Your task to perform on an android device: change timer sound Image 0: 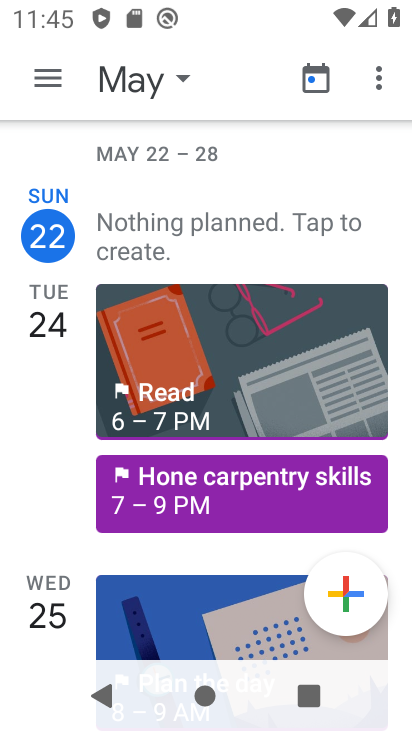
Step 0: press home button
Your task to perform on an android device: change timer sound Image 1: 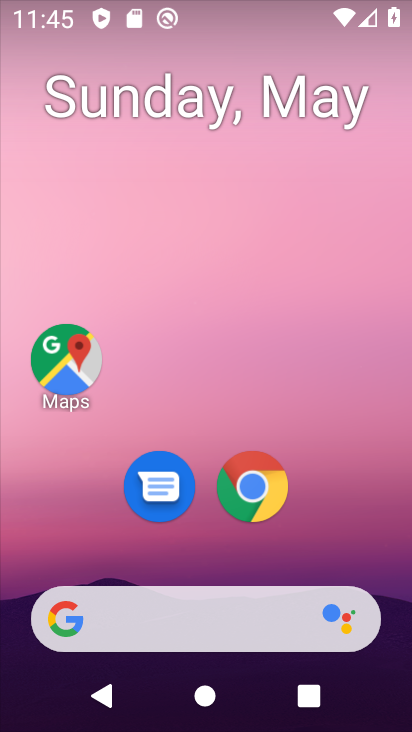
Step 1: drag from (402, 573) to (309, 114)
Your task to perform on an android device: change timer sound Image 2: 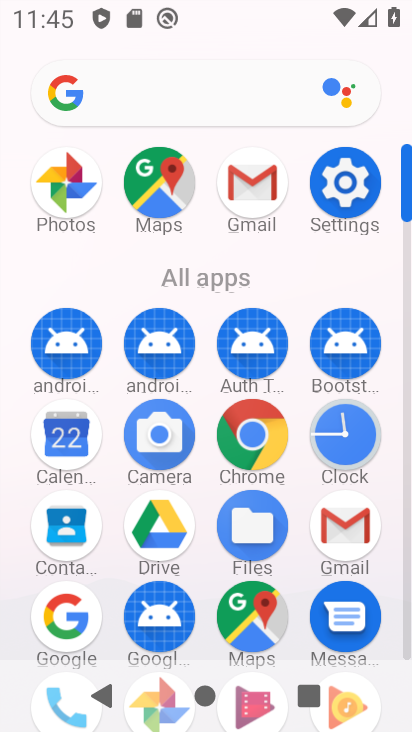
Step 2: click (405, 647)
Your task to perform on an android device: change timer sound Image 3: 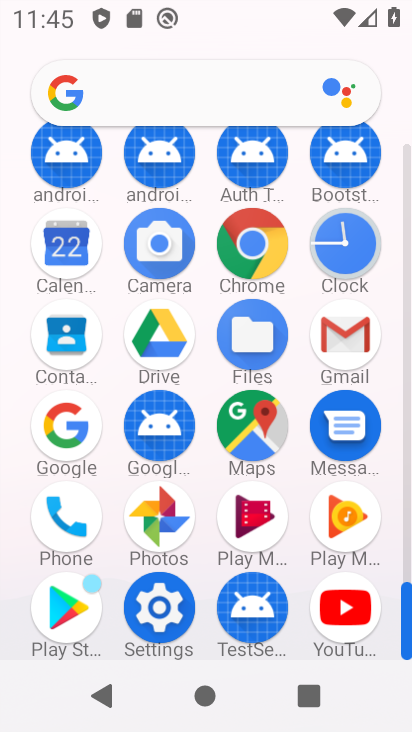
Step 3: click (341, 241)
Your task to perform on an android device: change timer sound Image 4: 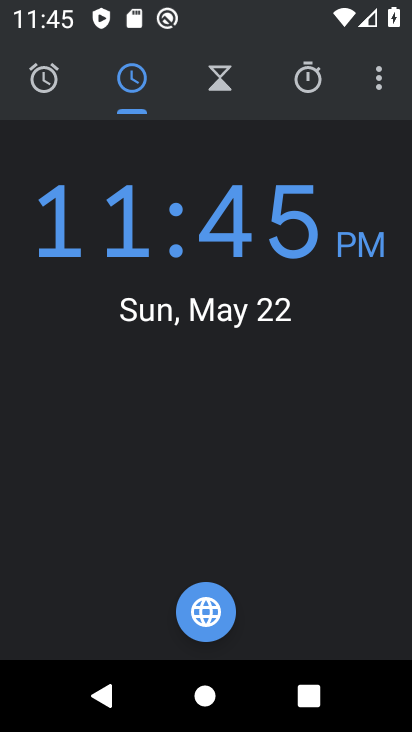
Step 4: click (376, 91)
Your task to perform on an android device: change timer sound Image 5: 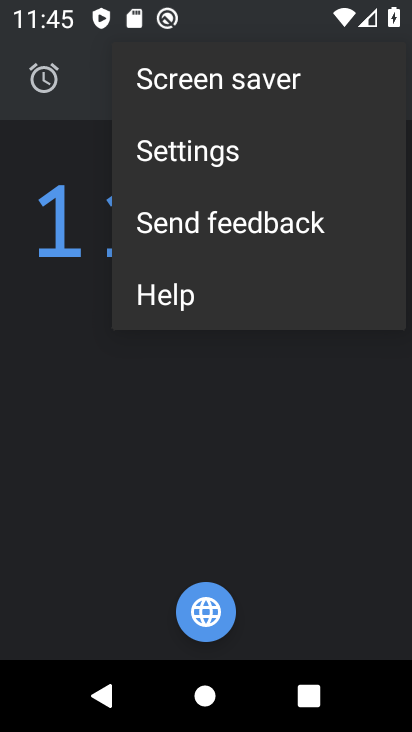
Step 5: click (175, 148)
Your task to perform on an android device: change timer sound Image 6: 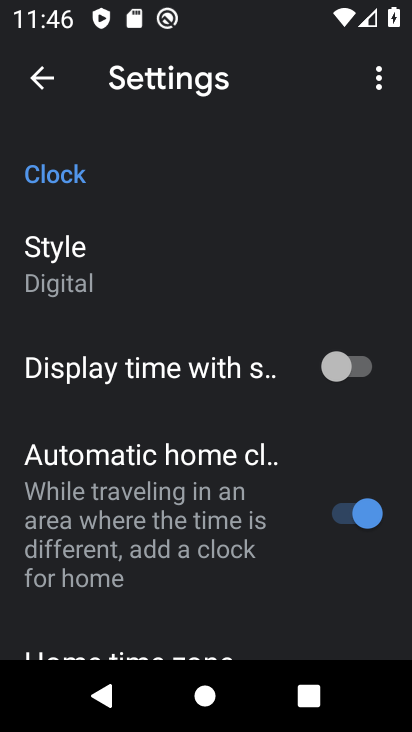
Step 6: drag from (295, 629) to (296, 230)
Your task to perform on an android device: change timer sound Image 7: 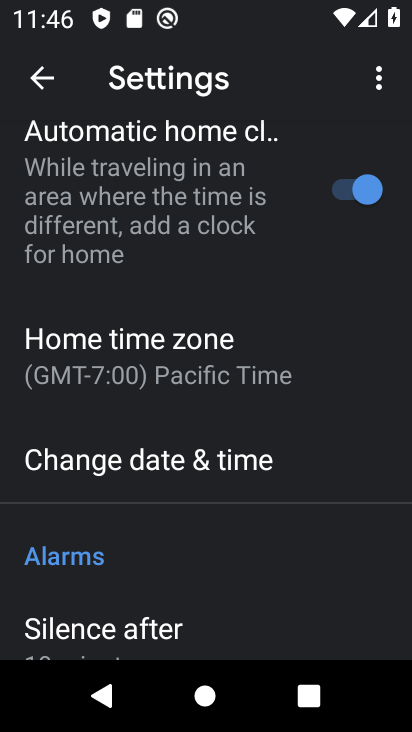
Step 7: drag from (235, 575) to (296, 41)
Your task to perform on an android device: change timer sound Image 8: 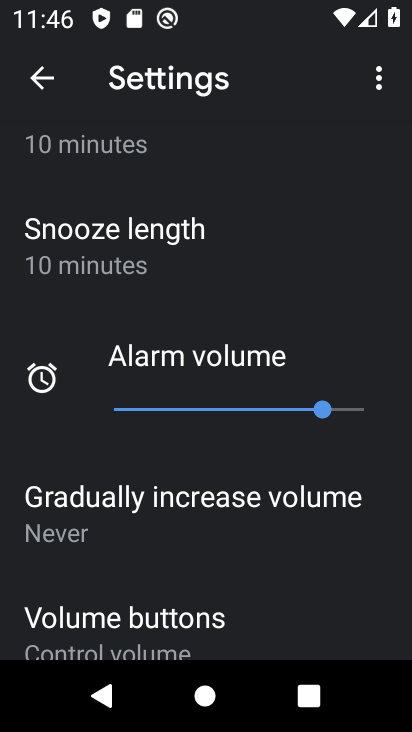
Step 8: drag from (228, 557) to (269, 111)
Your task to perform on an android device: change timer sound Image 9: 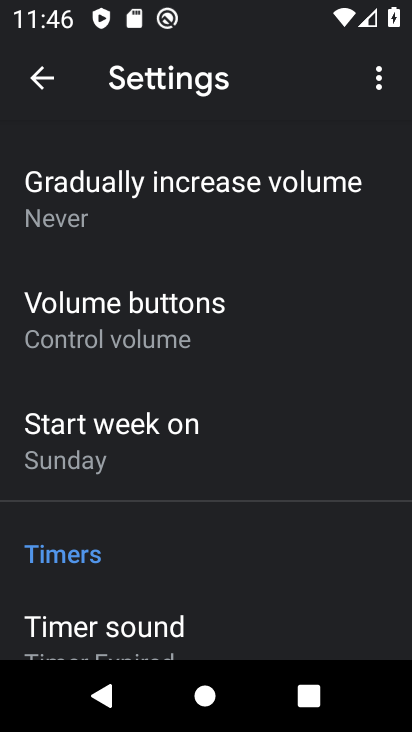
Step 9: drag from (214, 591) to (209, 232)
Your task to perform on an android device: change timer sound Image 10: 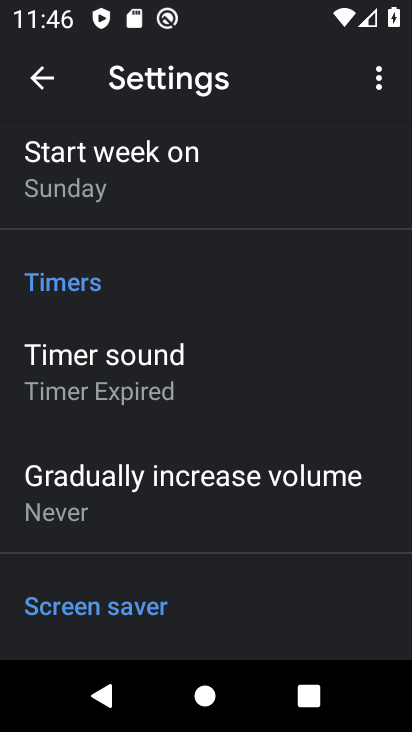
Step 10: click (86, 373)
Your task to perform on an android device: change timer sound Image 11: 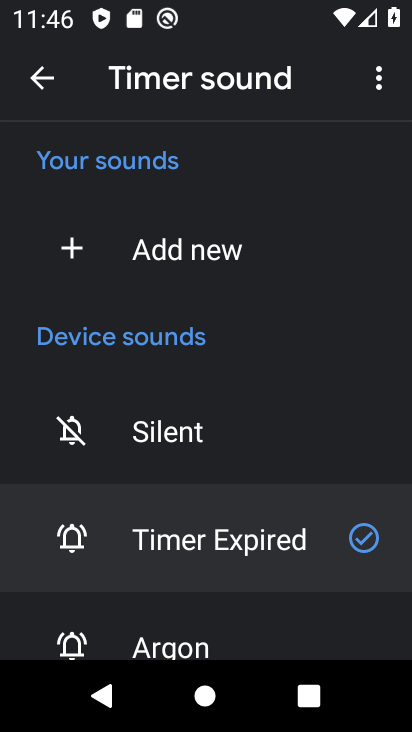
Step 11: drag from (261, 590) to (307, 73)
Your task to perform on an android device: change timer sound Image 12: 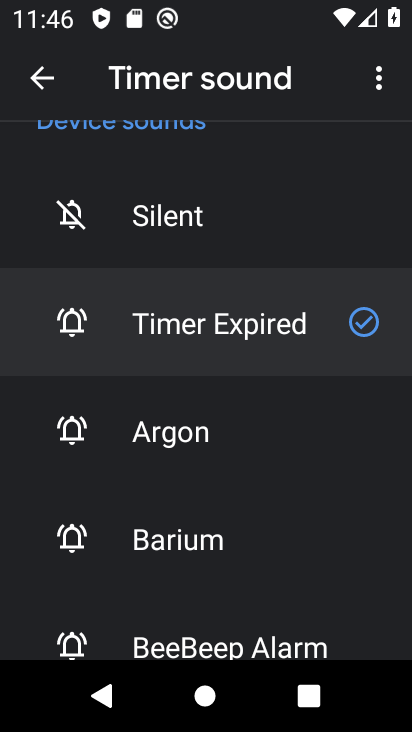
Step 12: click (181, 627)
Your task to perform on an android device: change timer sound Image 13: 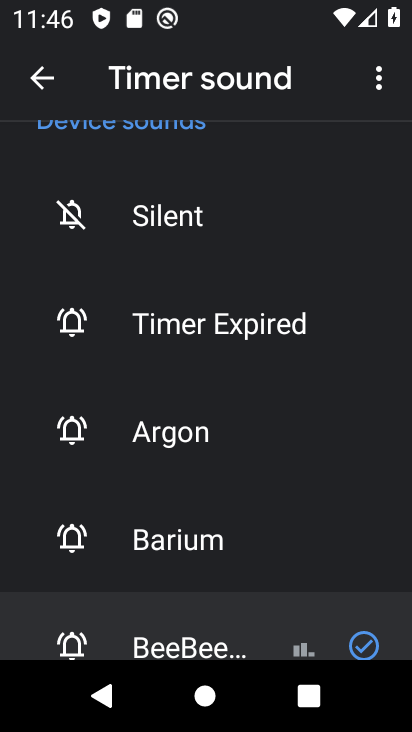
Step 13: task complete